Your task to perform on an android device: open a bookmark in the chrome app Image 0: 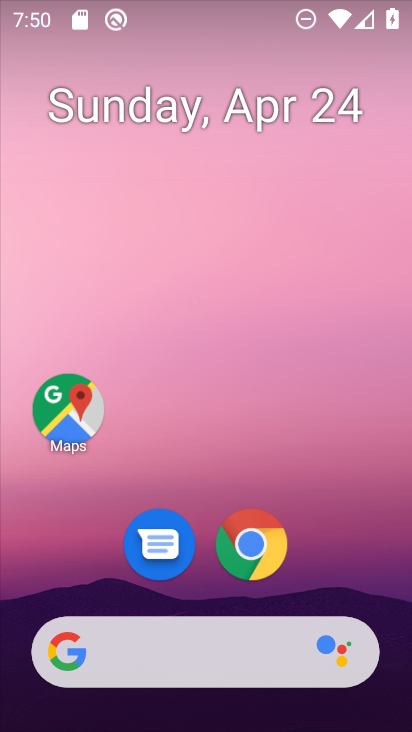
Step 0: drag from (219, 13) to (99, 443)
Your task to perform on an android device: open a bookmark in the chrome app Image 1: 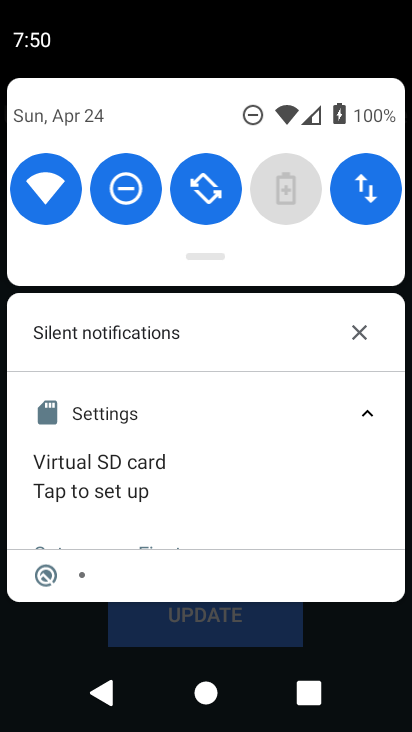
Step 1: drag from (208, 220) to (183, 645)
Your task to perform on an android device: open a bookmark in the chrome app Image 2: 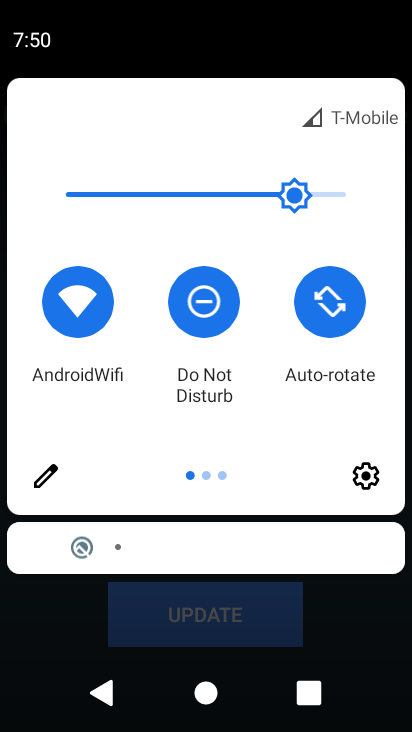
Step 2: drag from (327, 421) to (59, 424)
Your task to perform on an android device: open a bookmark in the chrome app Image 3: 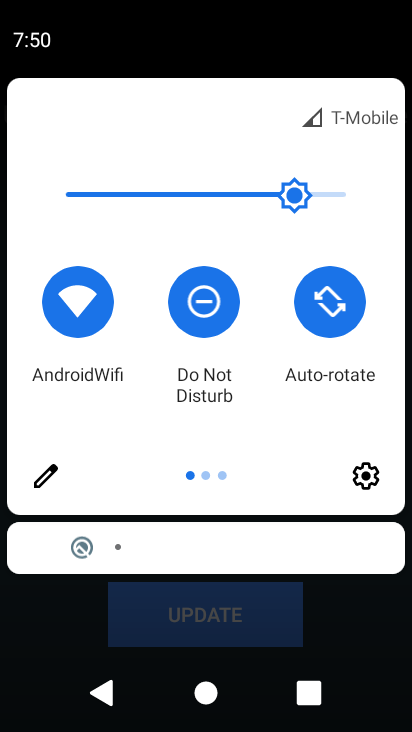
Step 3: drag from (208, 430) to (216, 634)
Your task to perform on an android device: open a bookmark in the chrome app Image 4: 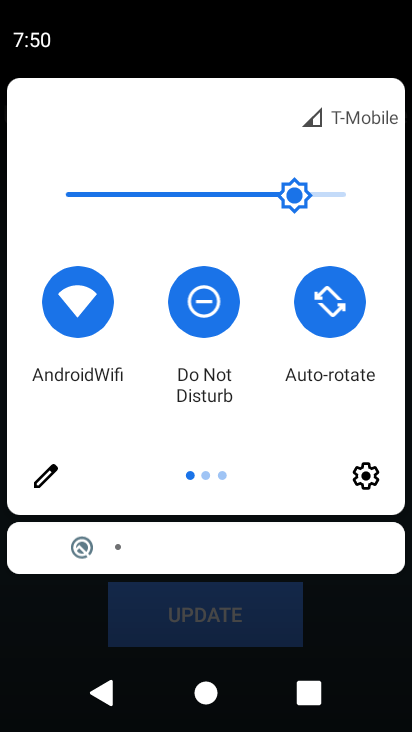
Step 4: drag from (368, 404) to (13, 413)
Your task to perform on an android device: open a bookmark in the chrome app Image 5: 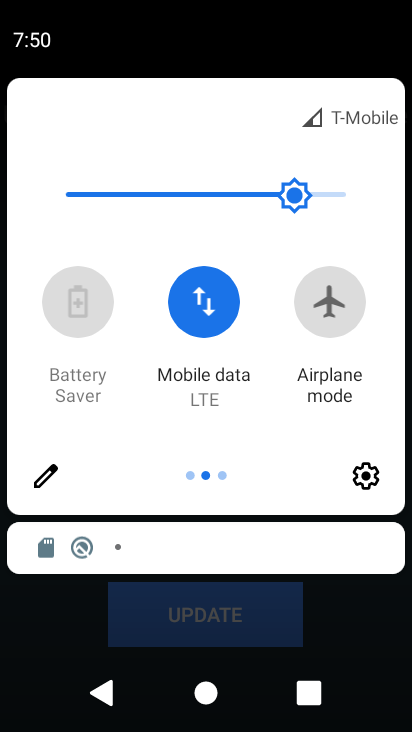
Step 5: drag from (187, 411) to (7, 436)
Your task to perform on an android device: open a bookmark in the chrome app Image 6: 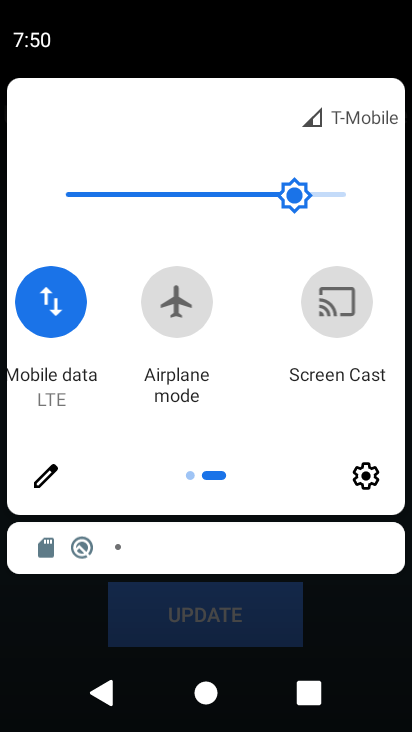
Step 6: drag from (347, 422) to (21, 431)
Your task to perform on an android device: open a bookmark in the chrome app Image 7: 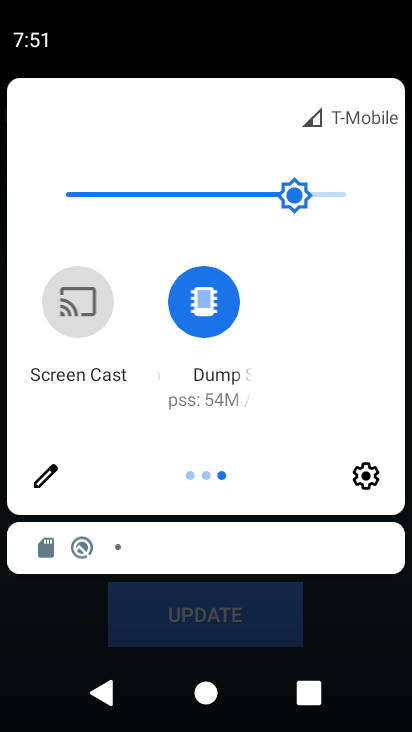
Step 7: press home button
Your task to perform on an android device: open a bookmark in the chrome app Image 8: 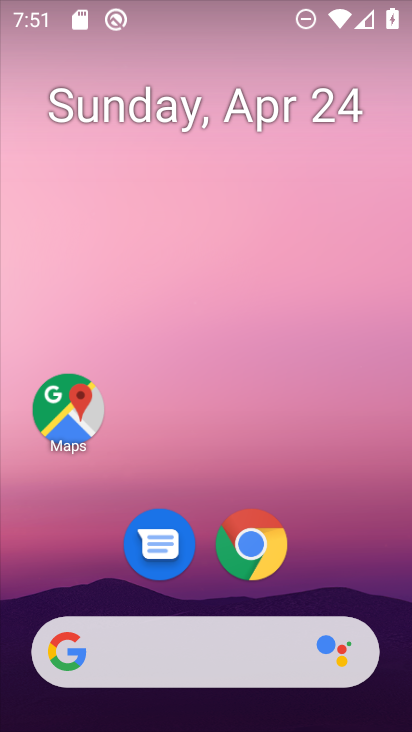
Step 8: click (249, 563)
Your task to perform on an android device: open a bookmark in the chrome app Image 9: 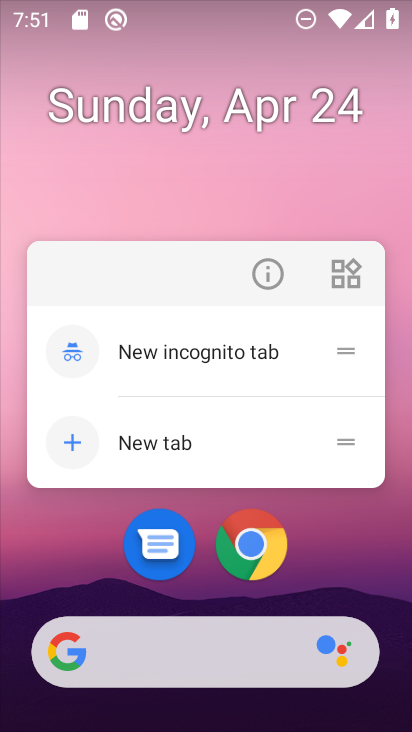
Step 9: click (259, 542)
Your task to perform on an android device: open a bookmark in the chrome app Image 10: 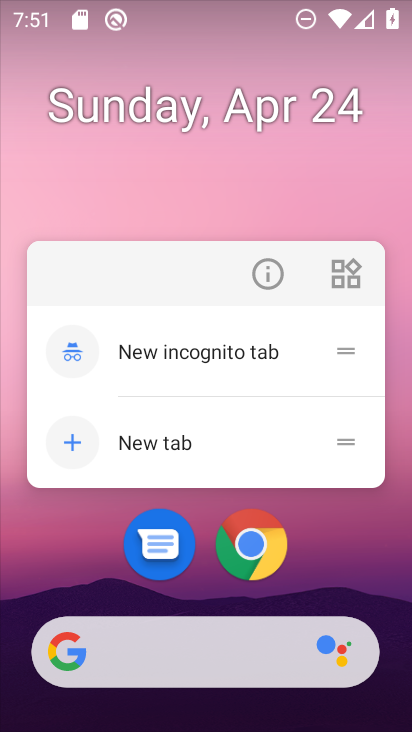
Step 10: click (250, 559)
Your task to perform on an android device: open a bookmark in the chrome app Image 11: 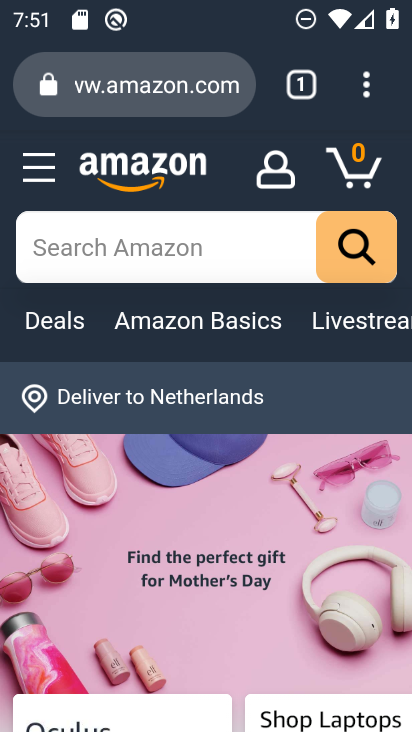
Step 11: task complete